Your task to perform on an android device: Search for vegetarian restaurants on Maps Image 0: 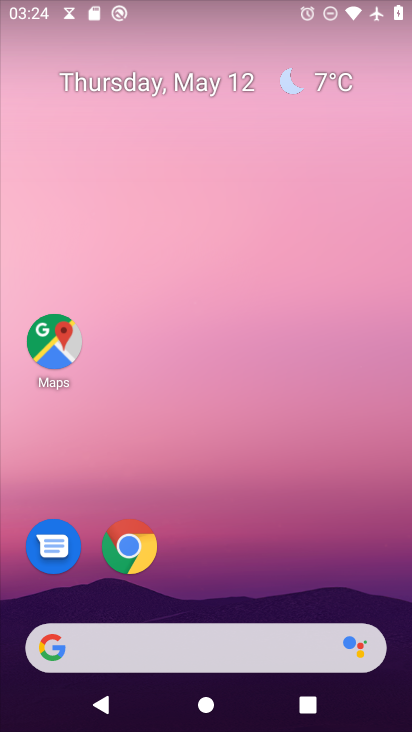
Step 0: drag from (199, 650) to (313, 176)
Your task to perform on an android device: Search for vegetarian restaurants on Maps Image 1: 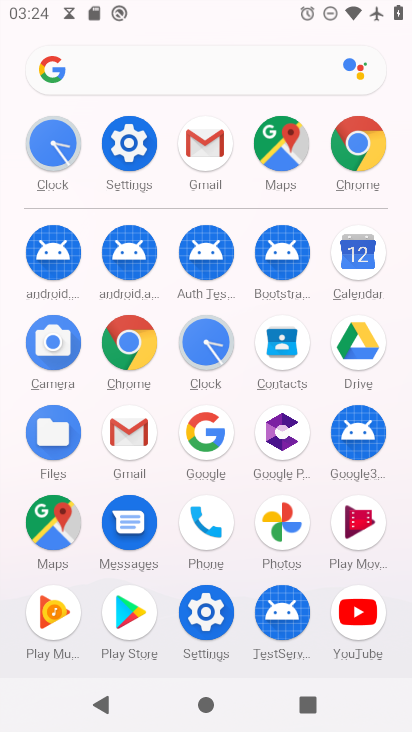
Step 1: click (61, 533)
Your task to perform on an android device: Search for vegetarian restaurants on Maps Image 2: 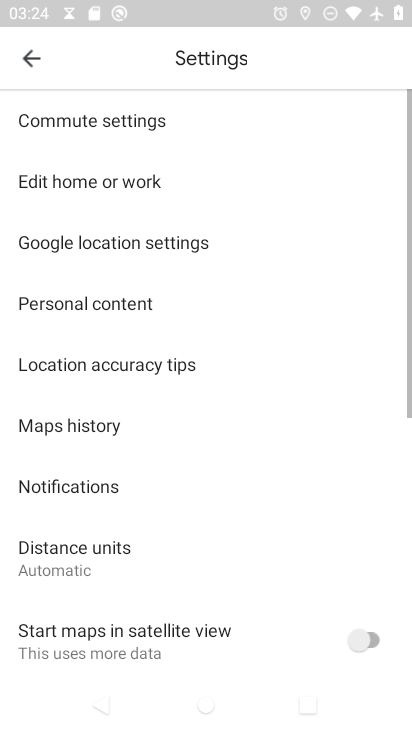
Step 2: click (28, 55)
Your task to perform on an android device: Search for vegetarian restaurants on Maps Image 3: 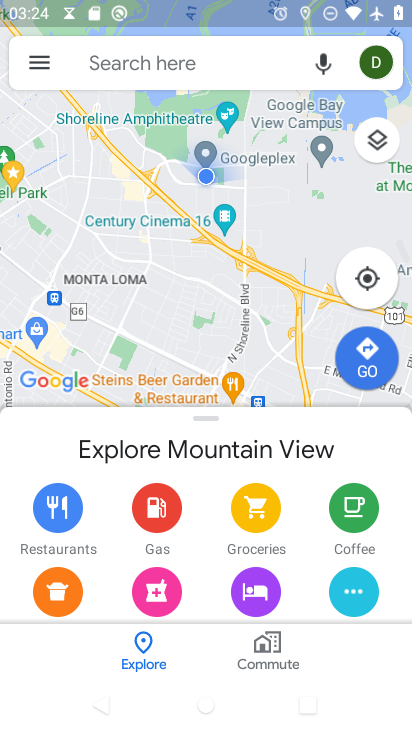
Step 3: click (168, 63)
Your task to perform on an android device: Search for vegetarian restaurants on Maps Image 4: 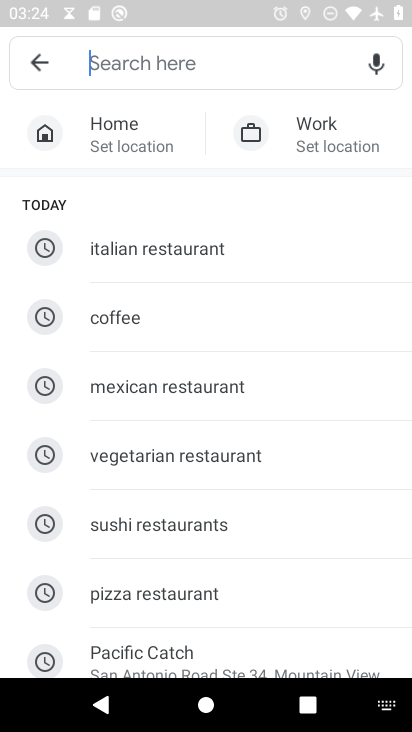
Step 4: click (140, 452)
Your task to perform on an android device: Search for vegetarian restaurants on Maps Image 5: 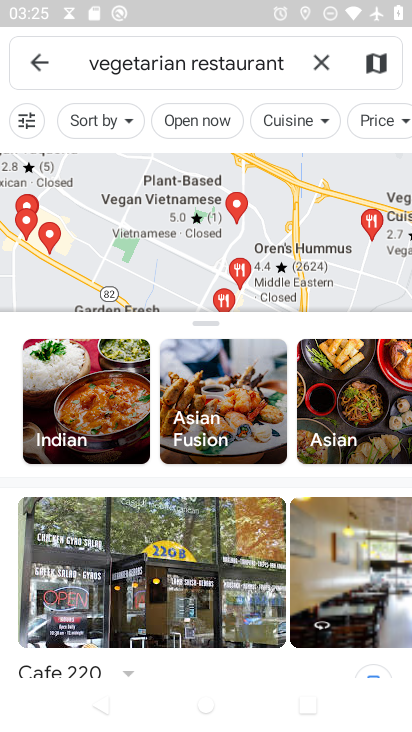
Step 5: task complete